Your task to perform on an android device: snooze an email in the gmail app Image 0: 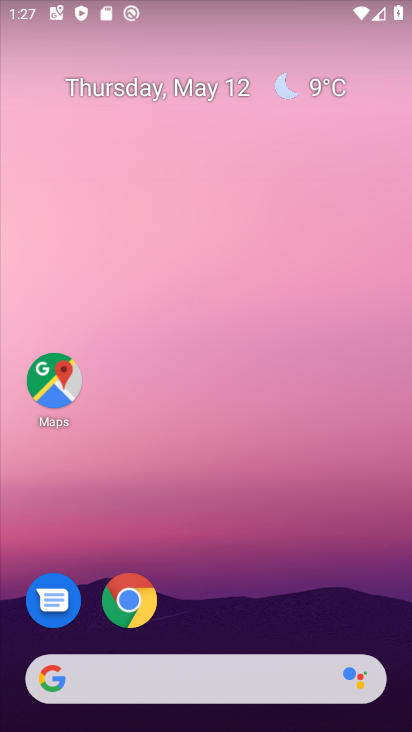
Step 0: press home button
Your task to perform on an android device: snooze an email in the gmail app Image 1: 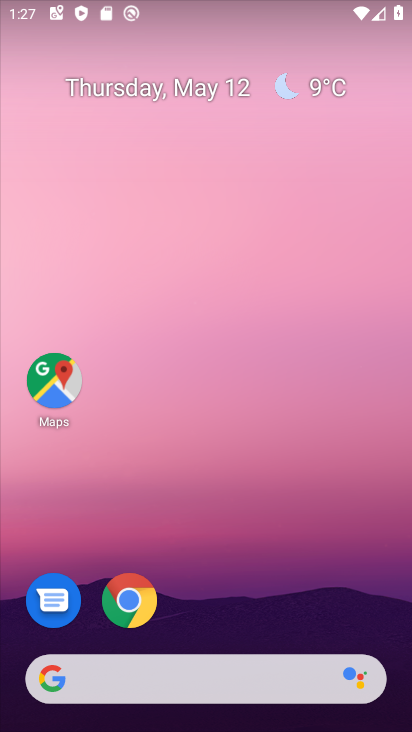
Step 1: press home button
Your task to perform on an android device: snooze an email in the gmail app Image 2: 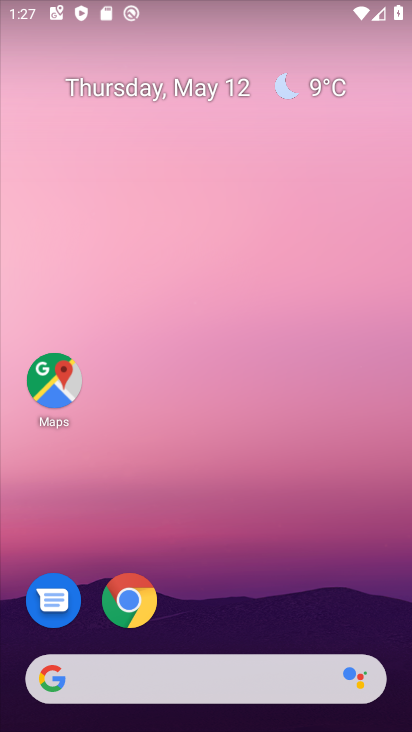
Step 2: drag from (298, 602) to (157, 169)
Your task to perform on an android device: snooze an email in the gmail app Image 3: 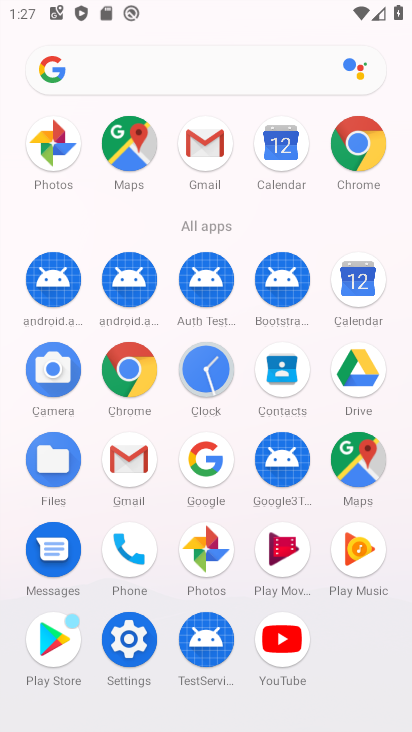
Step 3: click (199, 144)
Your task to perform on an android device: snooze an email in the gmail app Image 4: 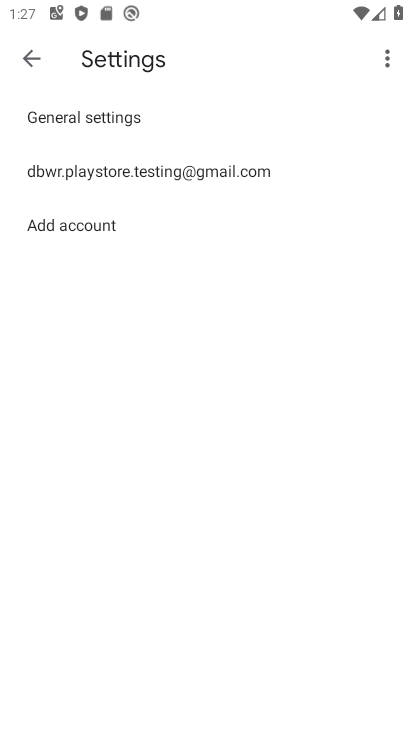
Step 4: click (33, 49)
Your task to perform on an android device: snooze an email in the gmail app Image 5: 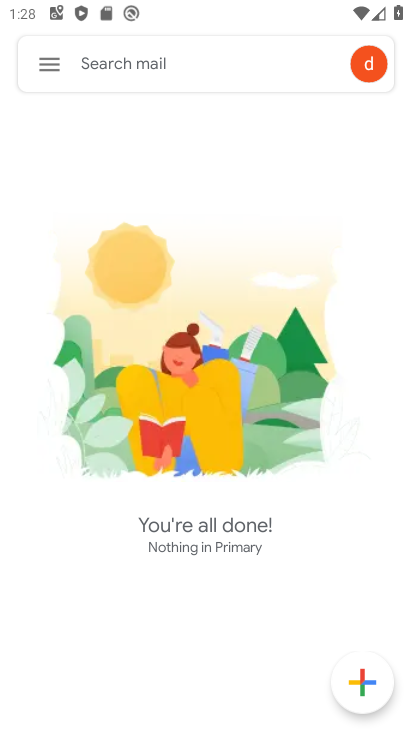
Step 5: task complete